Your task to perform on an android device: make emails show in primary in the gmail app Image 0: 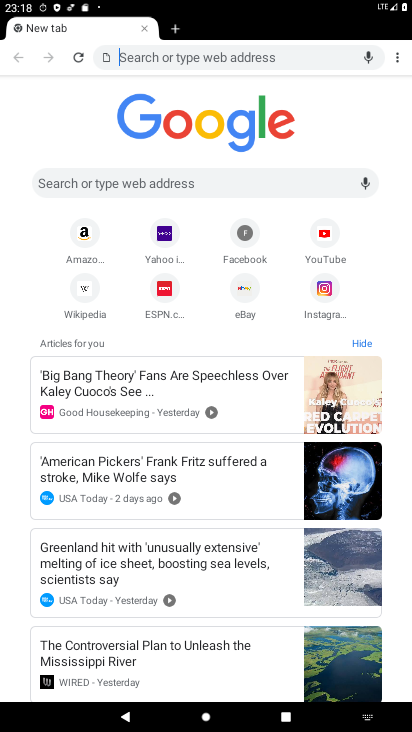
Step 0: press back button
Your task to perform on an android device: make emails show in primary in the gmail app Image 1: 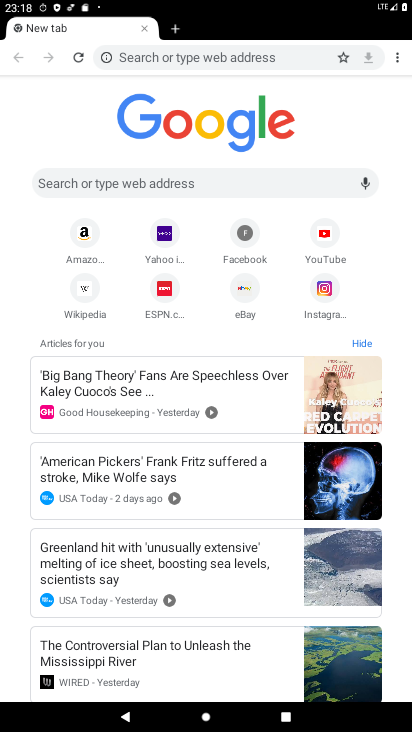
Step 1: press back button
Your task to perform on an android device: make emails show in primary in the gmail app Image 2: 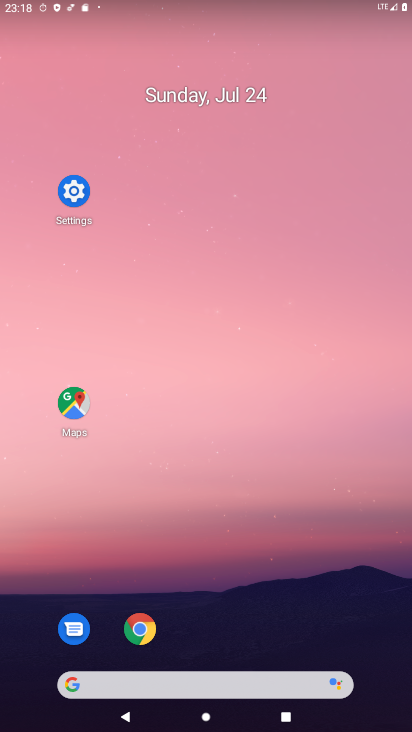
Step 2: drag from (232, 561) to (163, 122)
Your task to perform on an android device: make emails show in primary in the gmail app Image 3: 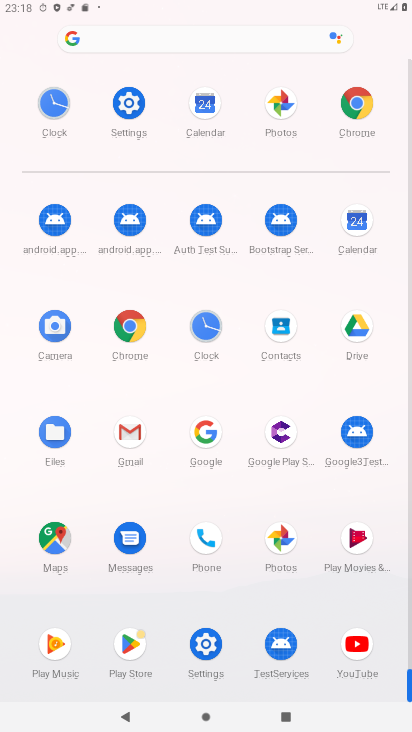
Step 3: click (122, 428)
Your task to perform on an android device: make emails show in primary in the gmail app Image 4: 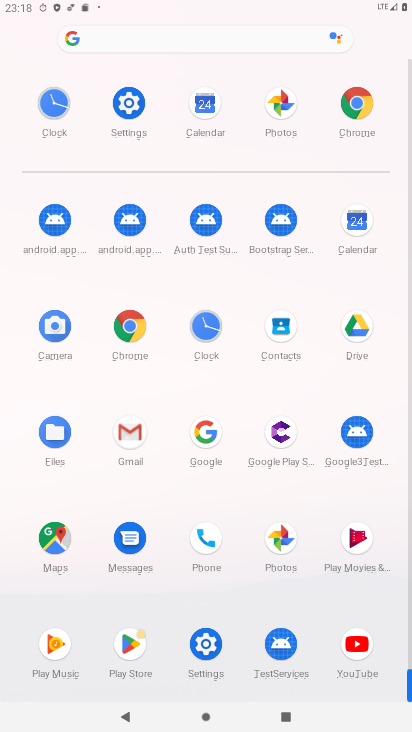
Step 4: click (116, 425)
Your task to perform on an android device: make emails show in primary in the gmail app Image 5: 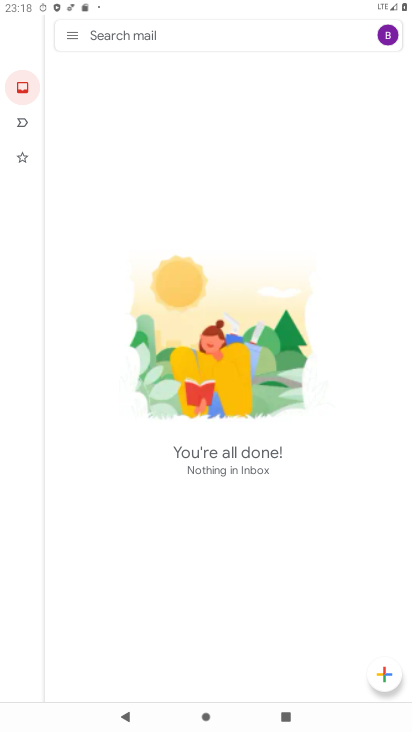
Step 5: click (77, 39)
Your task to perform on an android device: make emails show in primary in the gmail app Image 6: 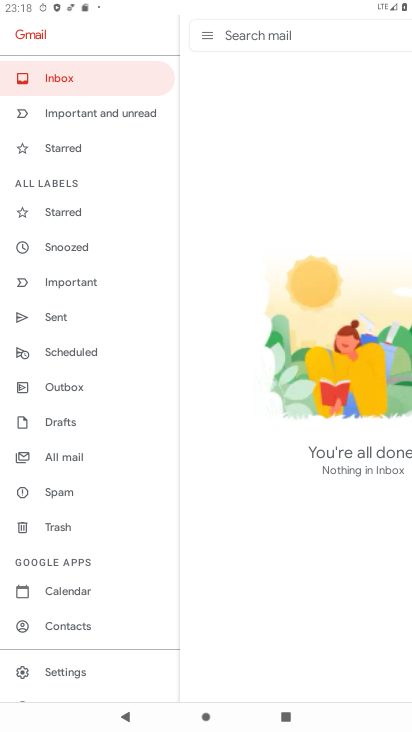
Step 6: drag from (58, 519) to (58, 133)
Your task to perform on an android device: make emails show in primary in the gmail app Image 7: 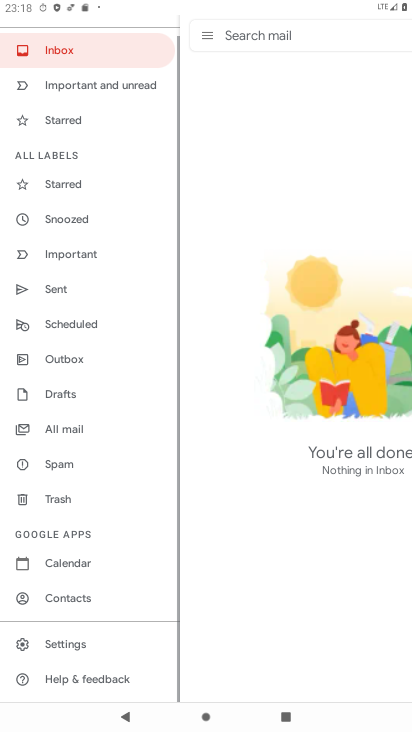
Step 7: click (69, 645)
Your task to perform on an android device: make emails show in primary in the gmail app Image 8: 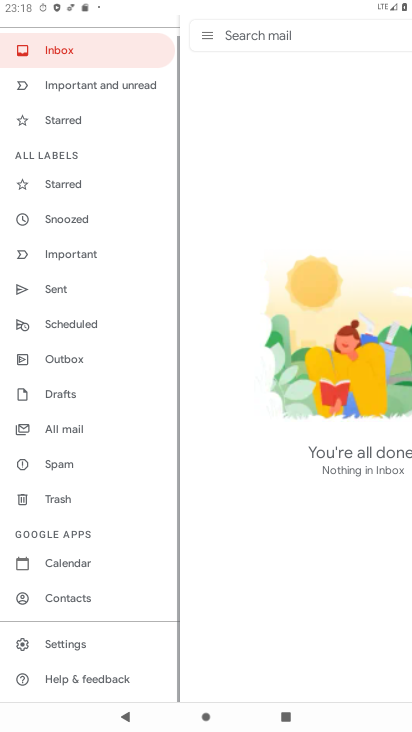
Step 8: click (69, 644)
Your task to perform on an android device: make emails show in primary in the gmail app Image 9: 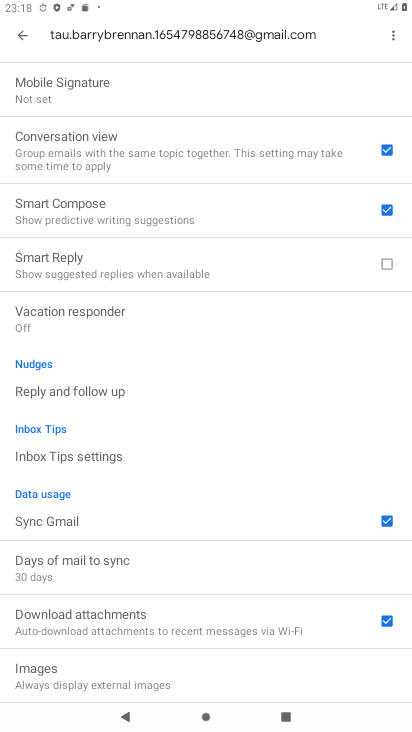
Step 9: drag from (59, 296) to (131, 593)
Your task to perform on an android device: make emails show in primary in the gmail app Image 10: 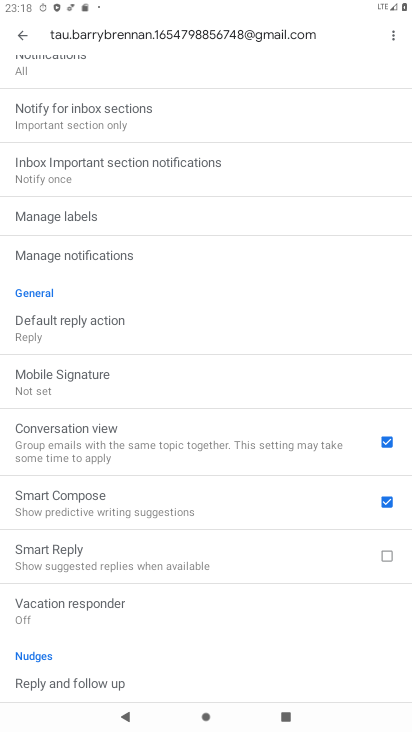
Step 10: click (194, 544)
Your task to perform on an android device: make emails show in primary in the gmail app Image 11: 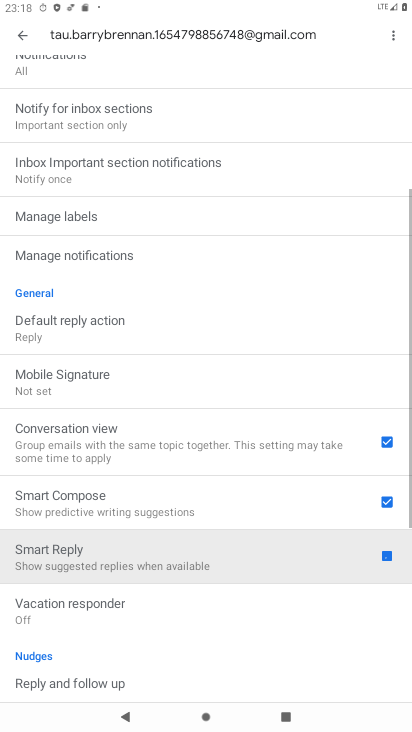
Step 11: drag from (154, 334) to (187, 591)
Your task to perform on an android device: make emails show in primary in the gmail app Image 12: 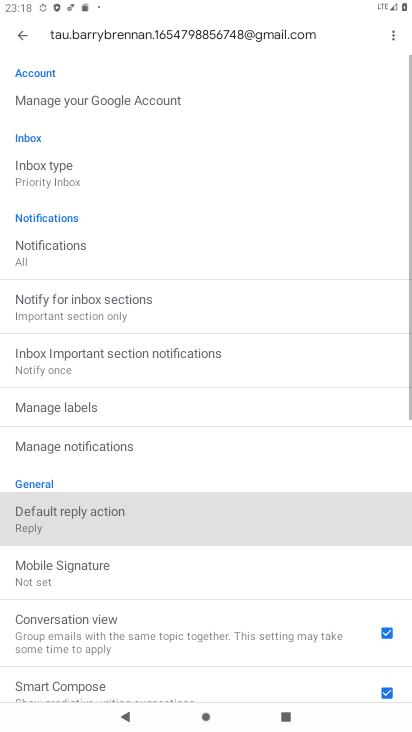
Step 12: drag from (137, 389) to (151, 577)
Your task to perform on an android device: make emails show in primary in the gmail app Image 13: 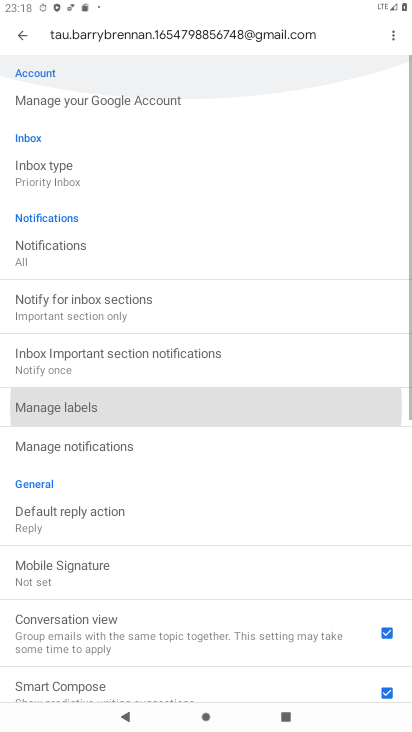
Step 13: drag from (148, 489) to (158, 552)
Your task to perform on an android device: make emails show in primary in the gmail app Image 14: 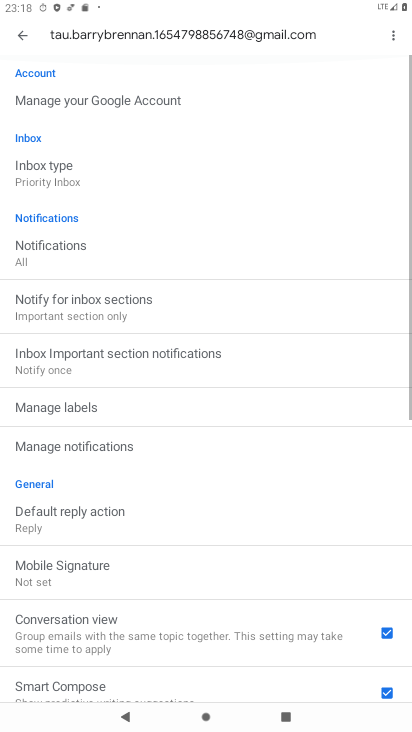
Step 14: drag from (66, 108) to (159, 569)
Your task to perform on an android device: make emails show in primary in the gmail app Image 15: 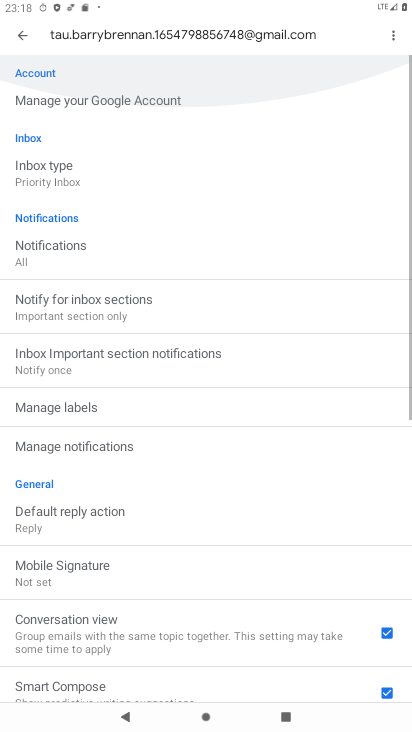
Step 15: drag from (147, 302) to (221, 493)
Your task to perform on an android device: make emails show in primary in the gmail app Image 16: 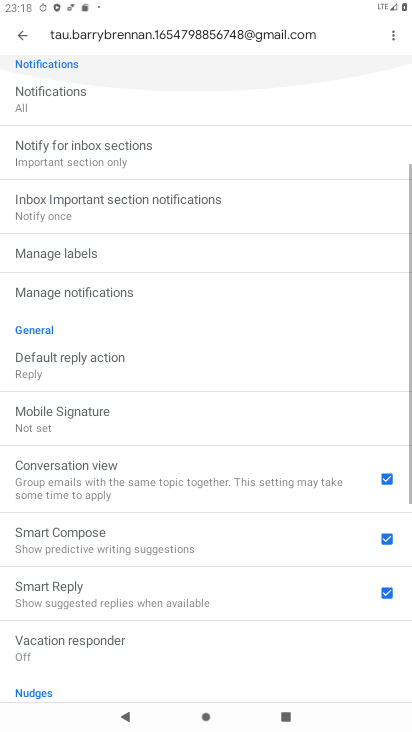
Step 16: drag from (151, 289) to (178, 547)
Your task to perform on an android device: make emails show in primary in the gmail app Image 17: 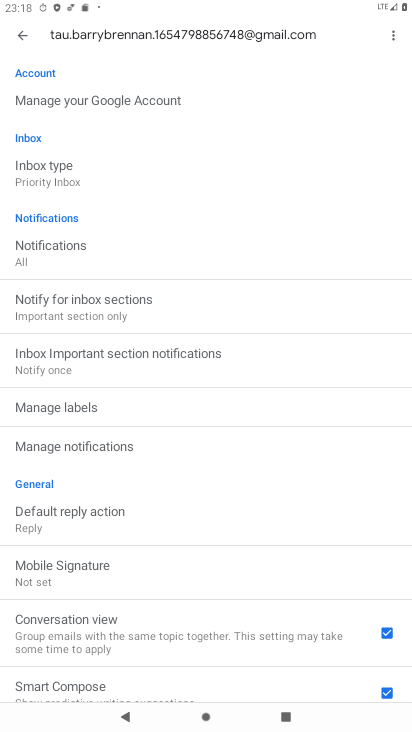
Step 17: click (46, 177)
Your task to perform on an android device: make emails show in primary in the gmail app Image 18: 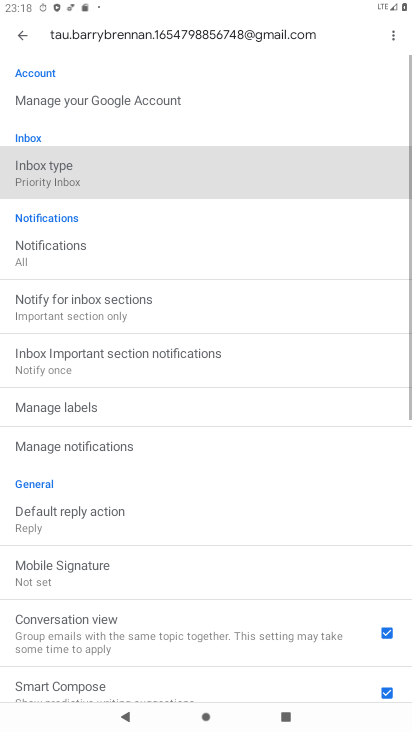
Step 18: click (47, 181)
Your task to perform on an android device: make emails show in primary in the gmail app Image 19: 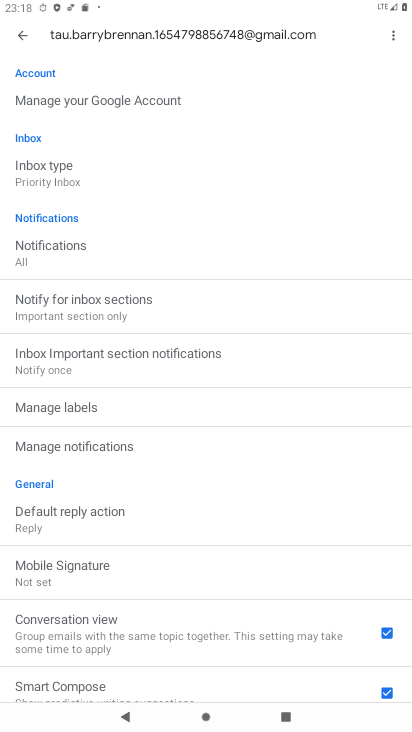
Step 19: click (48, 169)
Your task to perform on an android device: make emails show in primary in the gmail app Image 20: 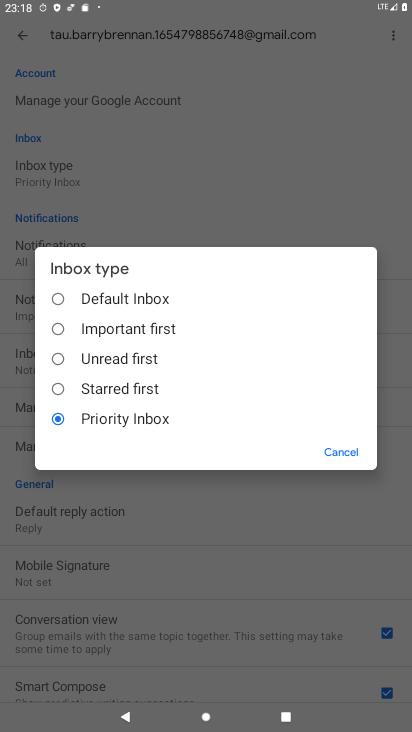
Step 20: click (59, 300)
Your task to perform on an android device: make emails show in primary in the gmail app Image 21: 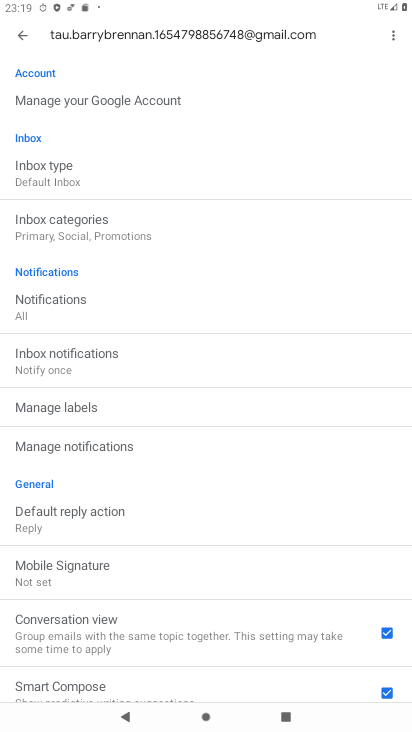
Step 21: task complete